Your task to perform on an android device: toggle sleep mode Image 0: 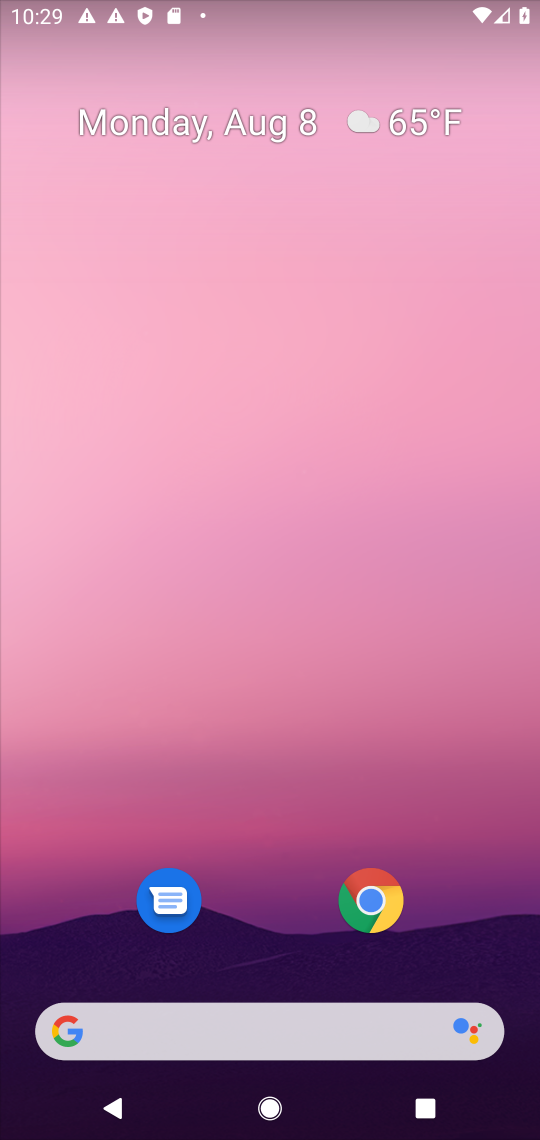
Step 0: click (375, 901)
Your task to perform on an android device: toggle sleep mode Image 1: 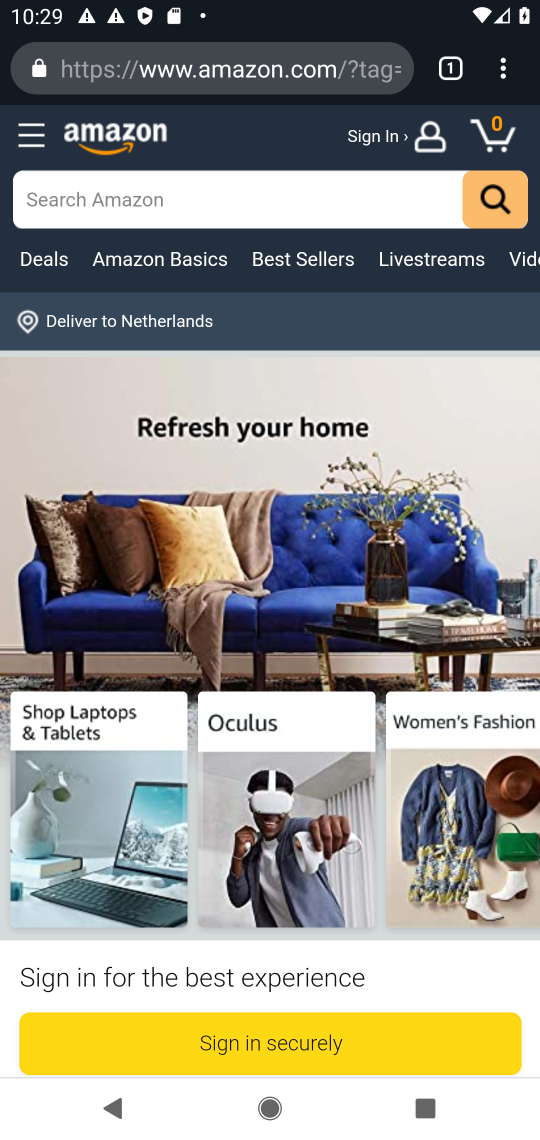
Step 1: click (509, 69)
Your task to perform on an android device: toggle sleep mode Image 2: 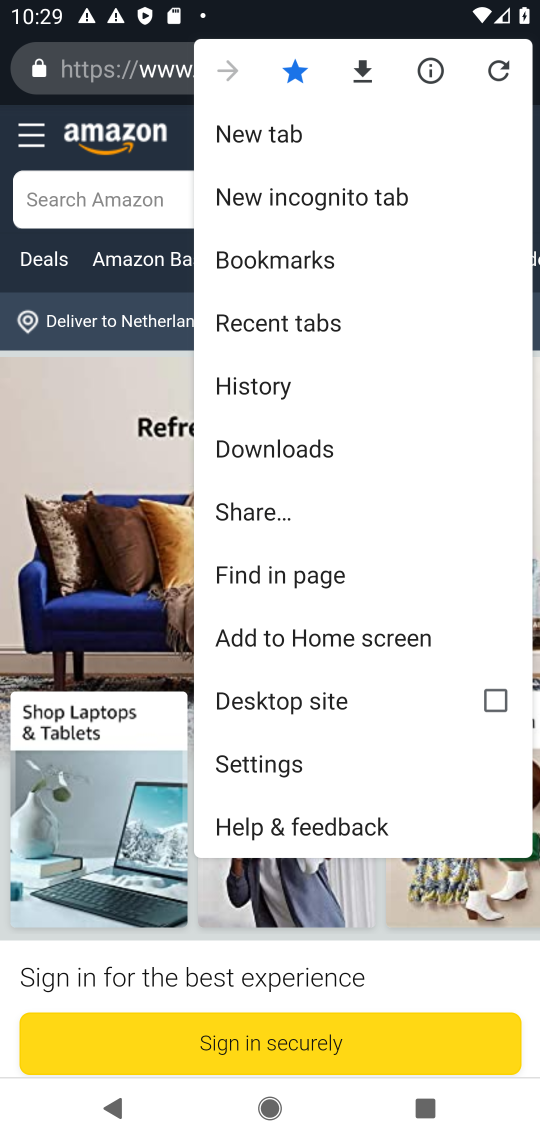
Step 2: click (258, 377)
Your task to perform on an android device: toggle sleep mode Image 3: 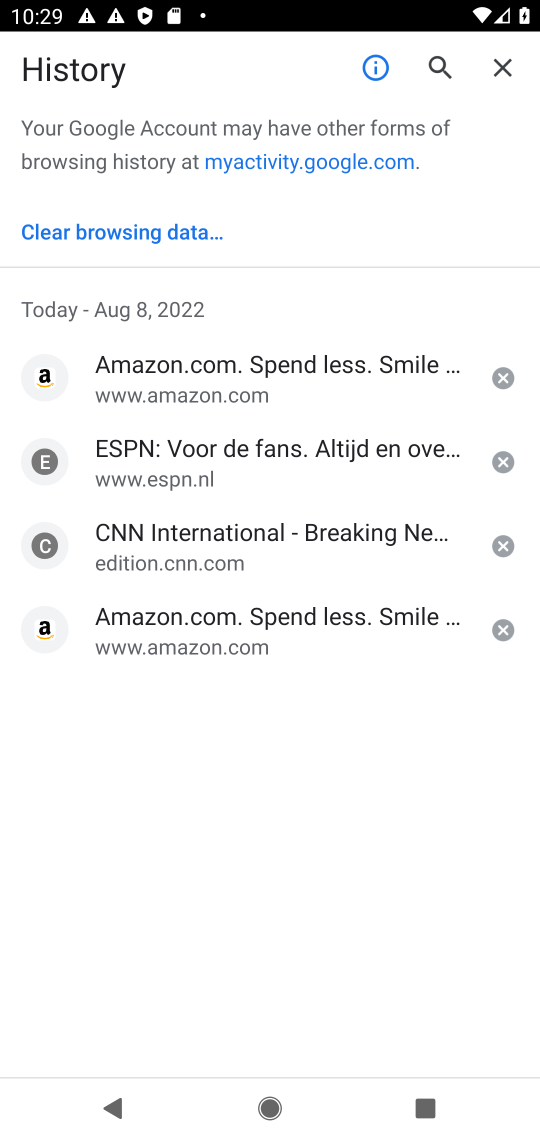
Step 3: click (137, 231)
Your task to perform on an android device: toggle sleep mode Image 4: 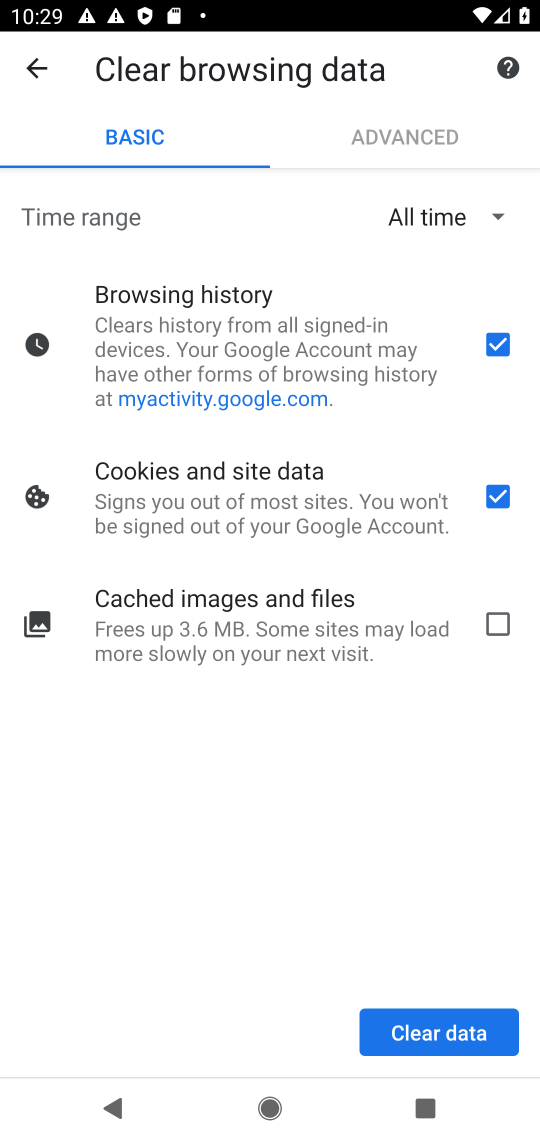
Step 4: click (500, 626)
Your task to perform on an android device: toggle sleep mode Image 5: 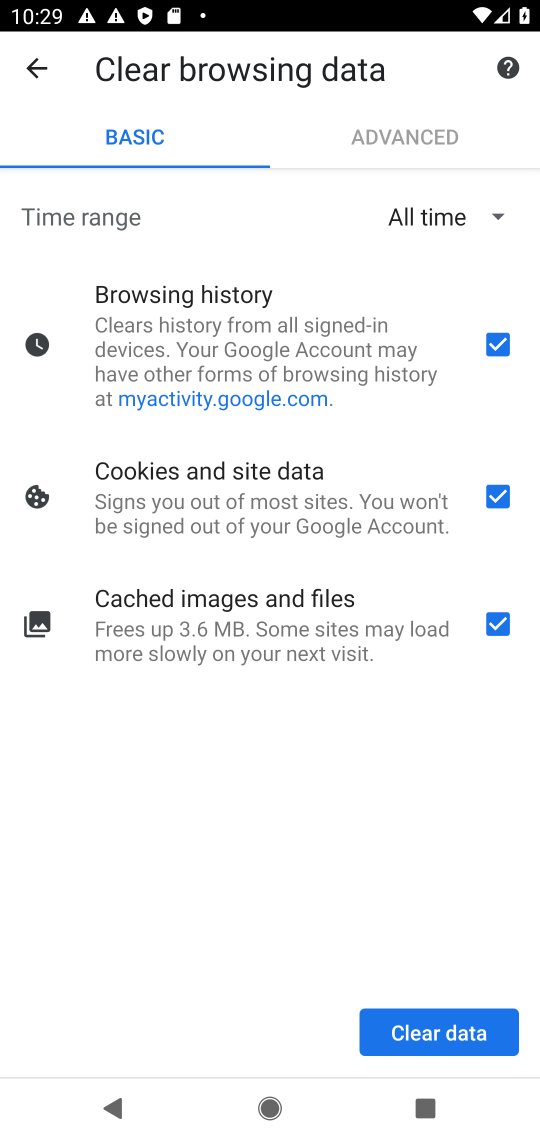
Step 5: click (407, 1024)
Your task to perform on an android device: toggle sleep mode Image 6: 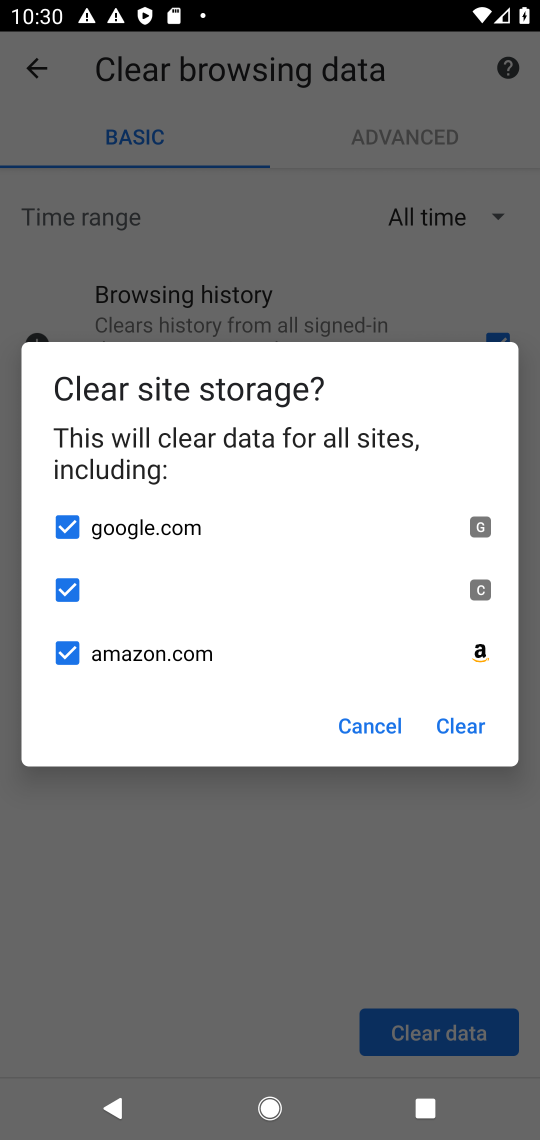
Step 6: click (458, 730)
Your task to perform on an android device: toggle sleep mode Image 7: 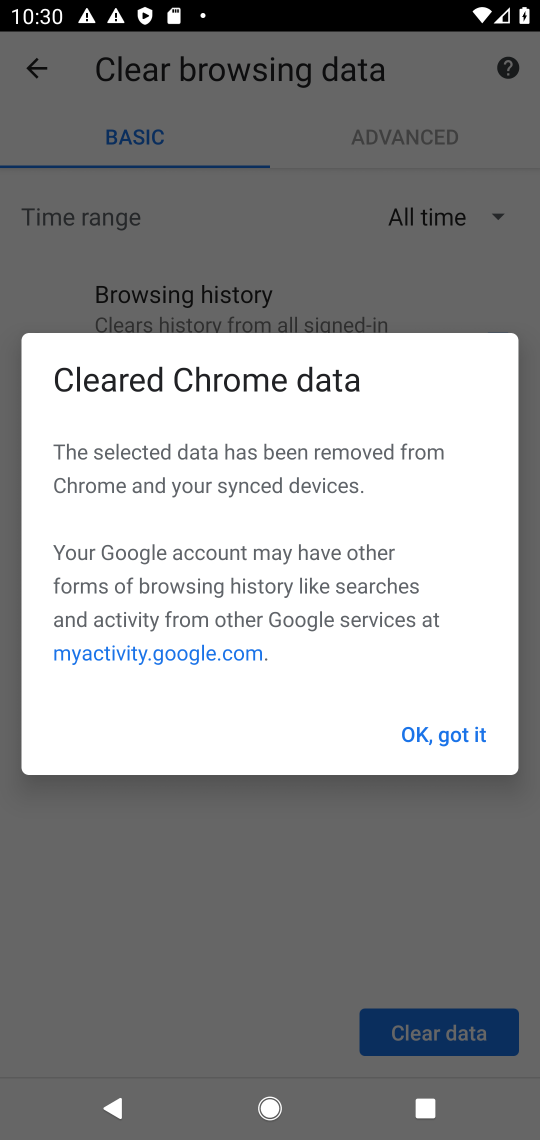
Step 7: click (460, 730)
Your task to perform on an android device: toggle sleep mode Image 8: 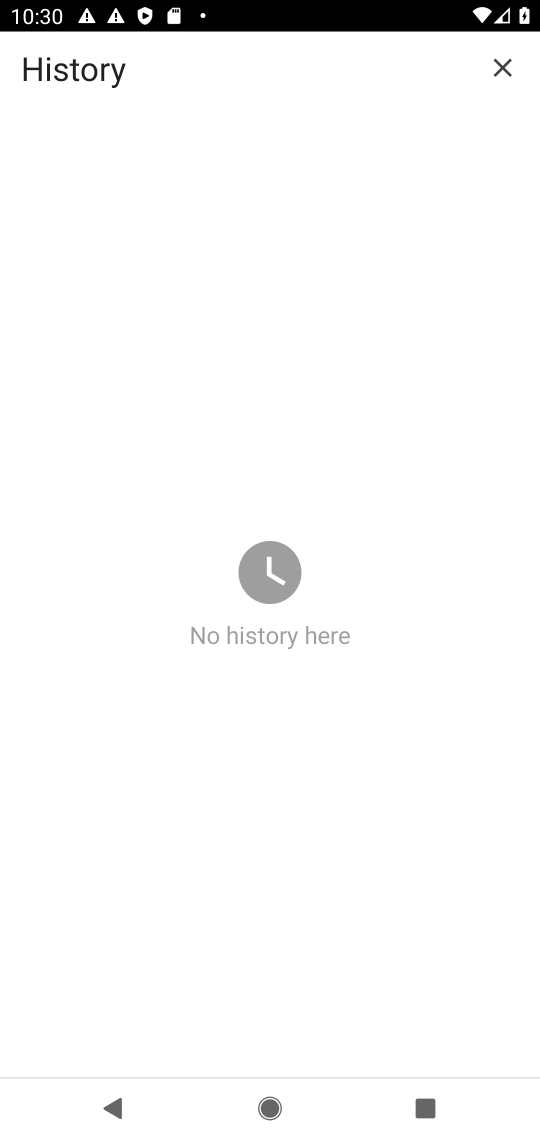
Step 8: task complete